Your task to perform on an android device: open chrome privacy settings Image 0: 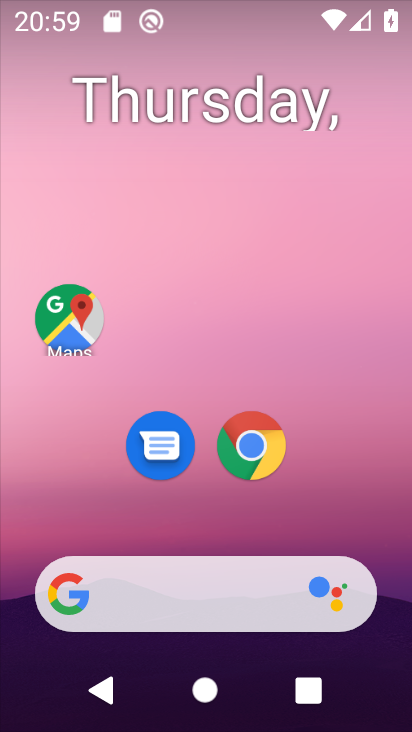
Step 0: click (253, 454)
Your task to perform on an android device: open chrome privacy settings Image 1: 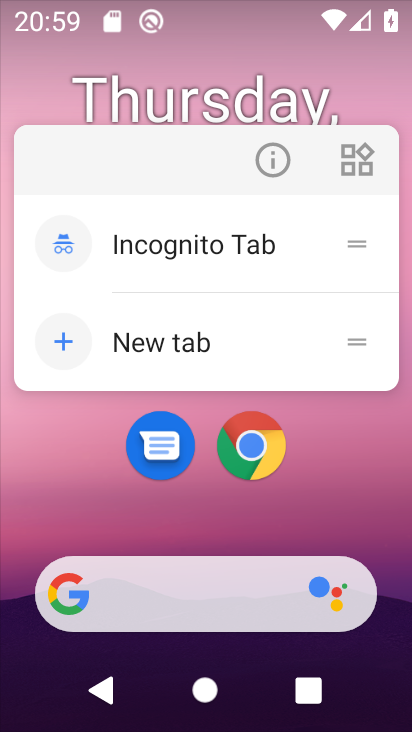
Step 1: click (253, 454)
Your task to perform on an android device: open chrome privacy settings Image 2: 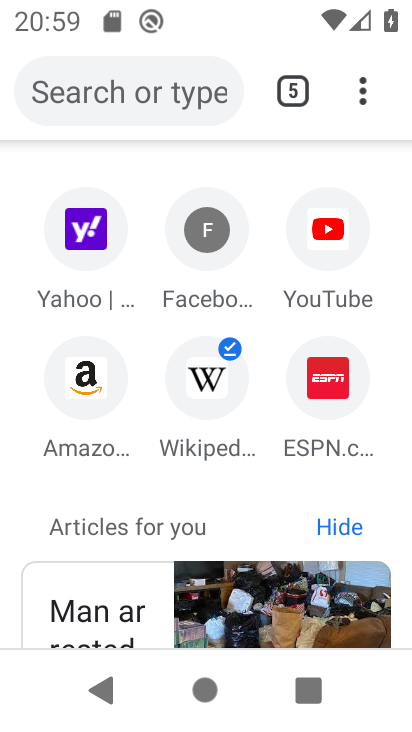
Step 2: drag from (364, 92) to (124, 469)
Your task to perform on an android device: open chrome privacy settings Image 3: 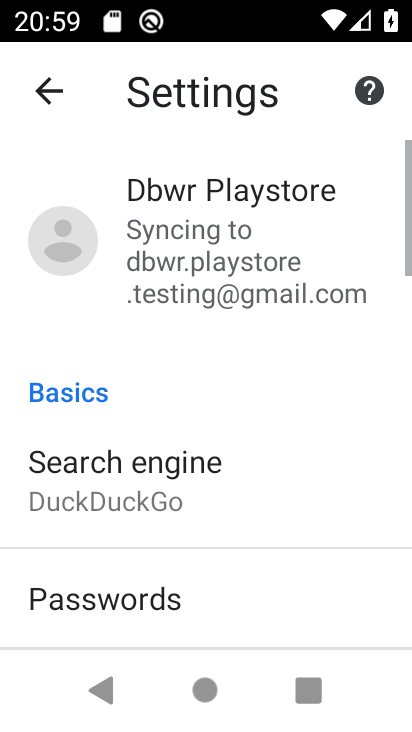
Step 3: drag from (218, 615) to (219, 224)
Your task to perform on an android device: open chrome privacy settings Image 4: 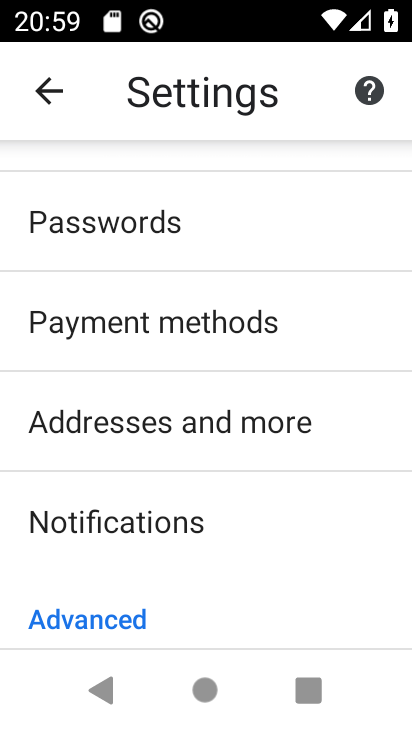
Step 4: drag from (180, 614) to (146, 392)
Your task to perform on an android device: open chrome privacy settings Image 5: 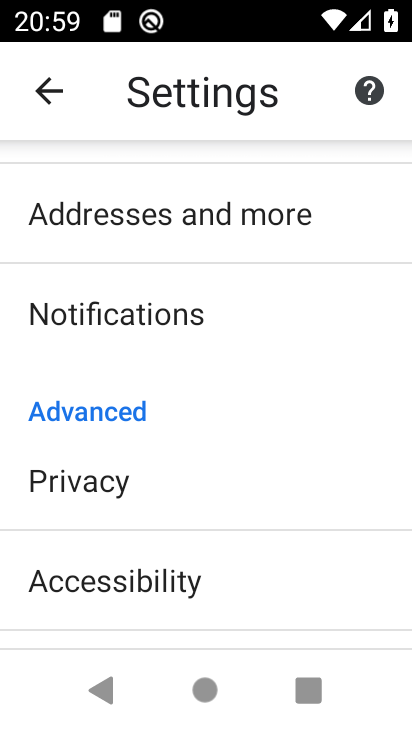
Step 5: click (101, 480)
Your task to perform on an android device: open chrome privacy settings Image 6: 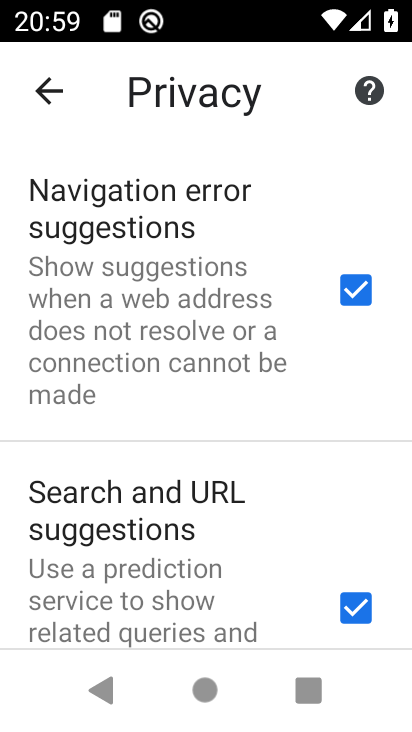
Step 6: task complete